Your task to perform on an android device: change notifications settings Image 0: 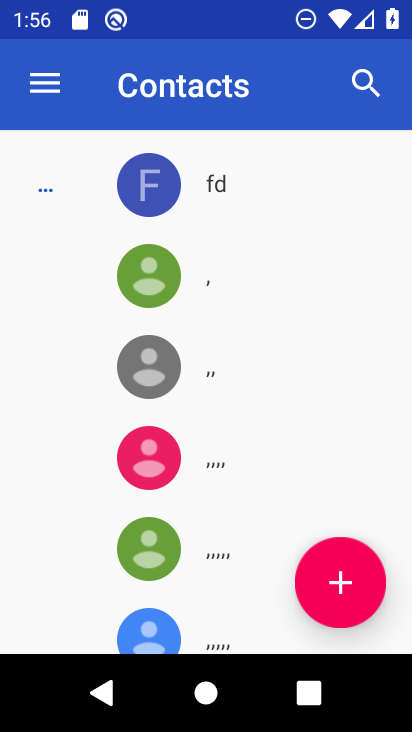
Step 0: press home button
Your task to perform on an android device: change notifications settings Image 1: 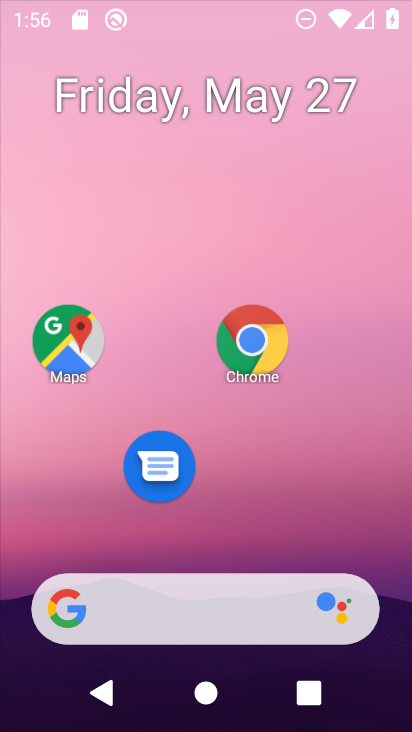
Step 1: drag from (299, 326) to (295, 70)
Your task to perform on an android device: change notifications settings Image 2: 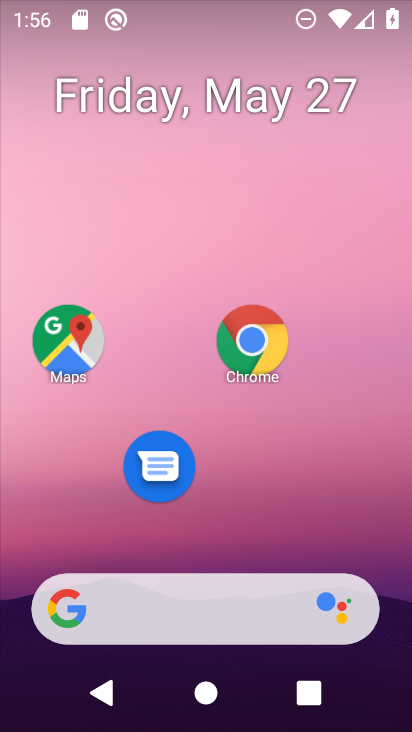
Step 2: drag from (340, 530) to (303, 32)
Your task to perform on an android device: change notifications settings Image 3: 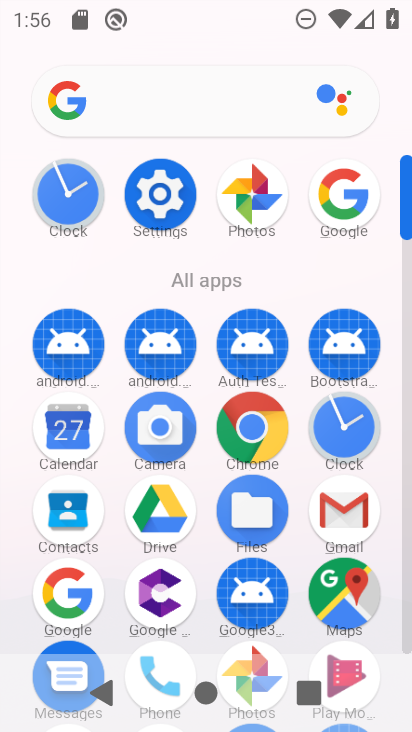
Step 3: click (160, 208)
Your task to perform on an android device: change notifications settings Image 4: 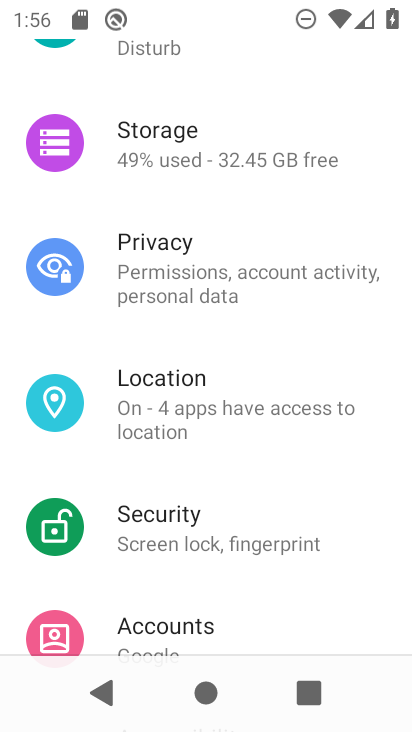
Step 4: drag from (266, 585) to (214, 592)
Your task to perform on an android device: change notifications settings Image 5: 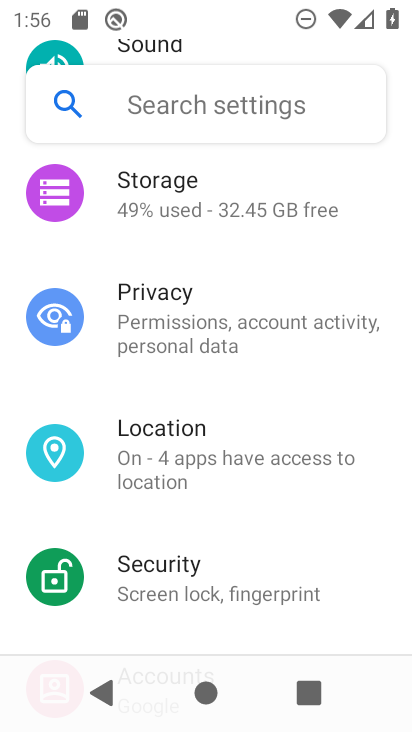
Step 5: drag from (168, 230) to (168, 610)
Your task to perform on an android device: change notifications settings Image 6: 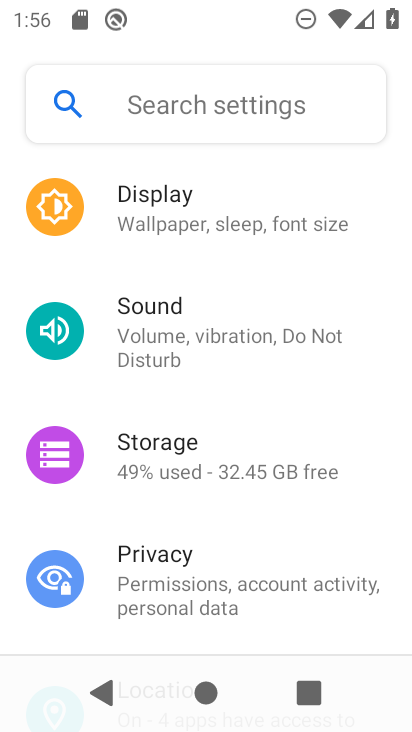
Step 6: drag from (129, 204) to (124, 535)
Your task to perform on an android device: change notifications settings Image 7: 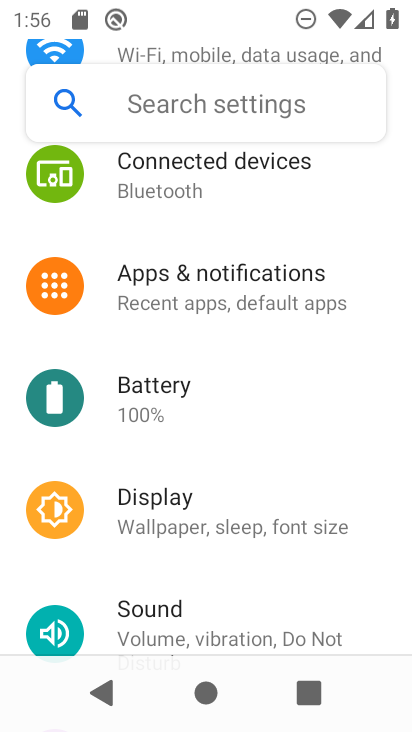
Step 7: click (154, 295)
Your task to perform on an android device: change notifications settings Image 8: 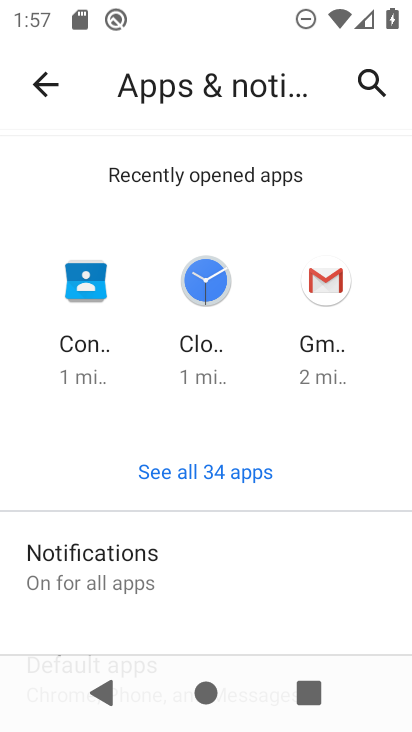
Step 8: drag from (233, 541) to (215, 300)
Your task to perform on an android device: change notifications settings Image 9: 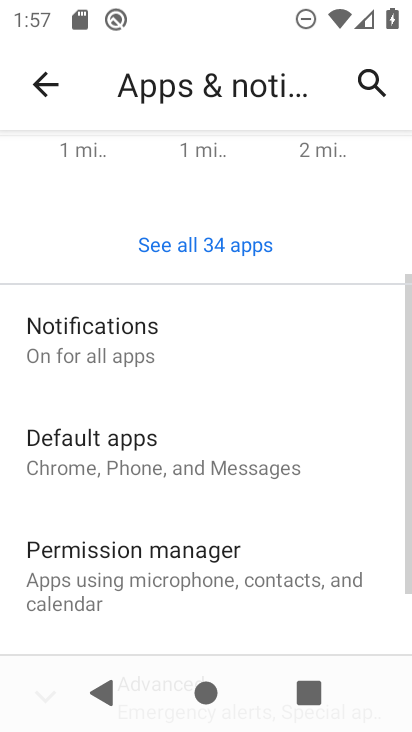
Step 9: click (191, 353)
Your task to perform on an android device: change notifications settings Image 10: 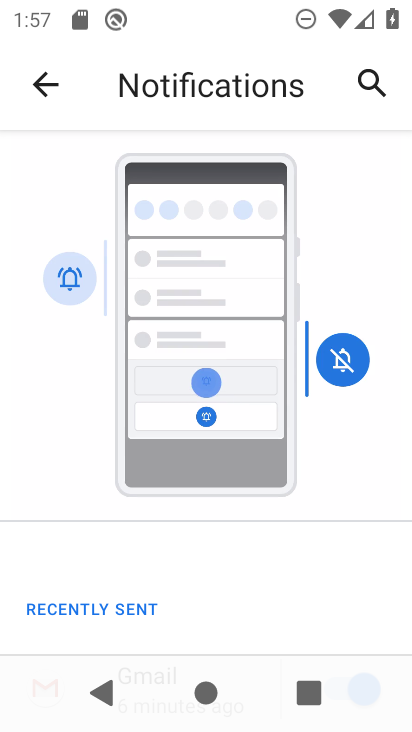
Step 10: task complete